Your task to perform on an android device: What is the recent news? Image 0: 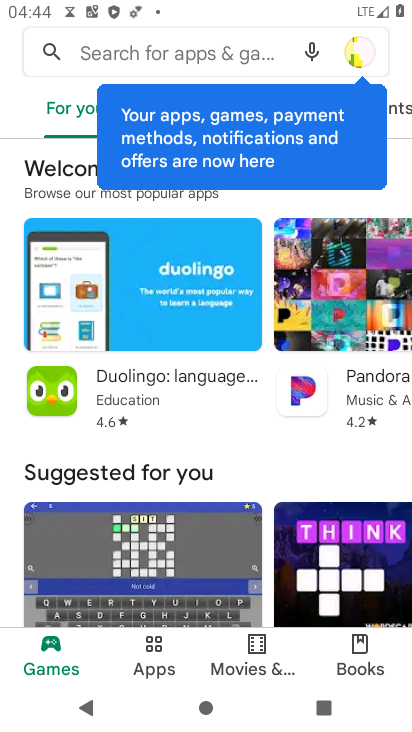
Step 0: press home button
Your task to perform on an android device: What is the recent news? Image 1: 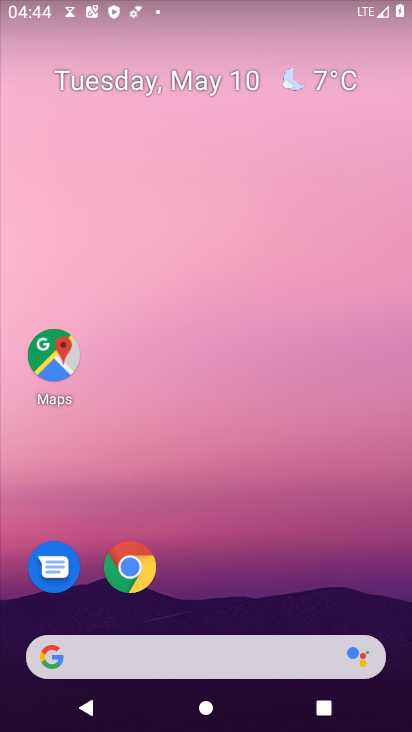
Step 1: drag from (215, 548) to (144, 55)
Your task to perform on an android device: What is the recent news? Image 2: 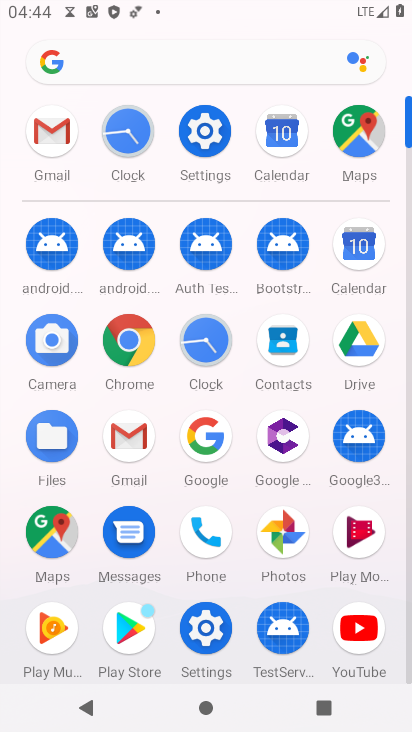
Step 2: click (201, 433)
Your task to perform on an android device: What is the recent news? Image 3: 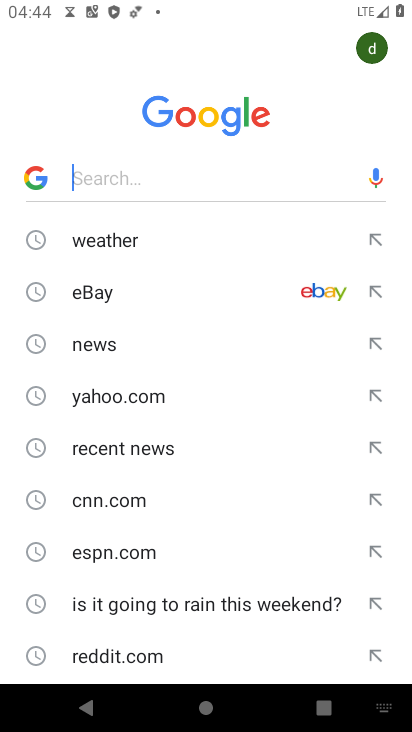
Step 3: click (135, 451)
Your task to perform on an android device: What is the recent news? Image 4: 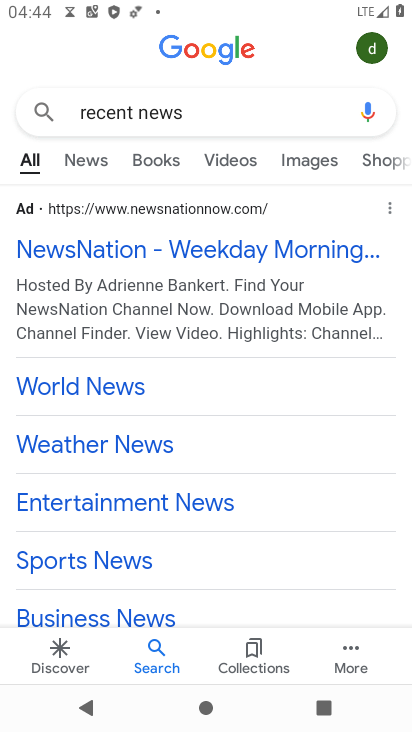
Step 4: task complete